Your task to perform on an android device: Go to battery settings Image 0: 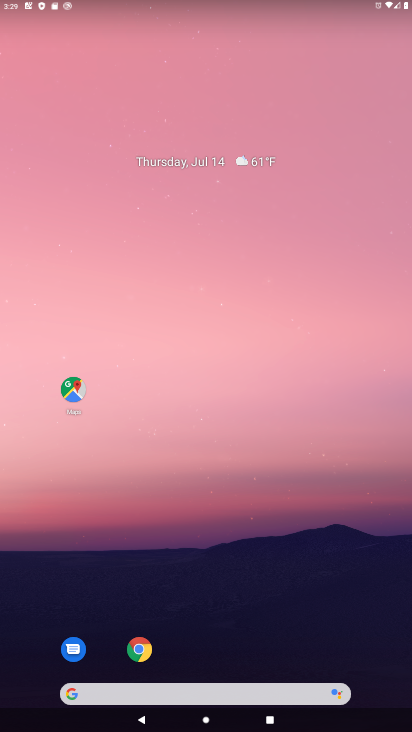
Step 0: press home button
Your task to perform on an android device: Go to battery settings Image 1: 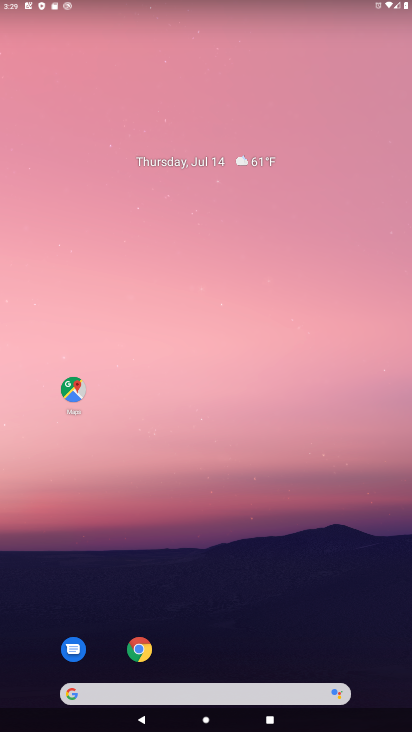
Step 1: drag from (193, 665) to (146, 116)
Your task to perform on an android device: Go to battery settings Image 2: 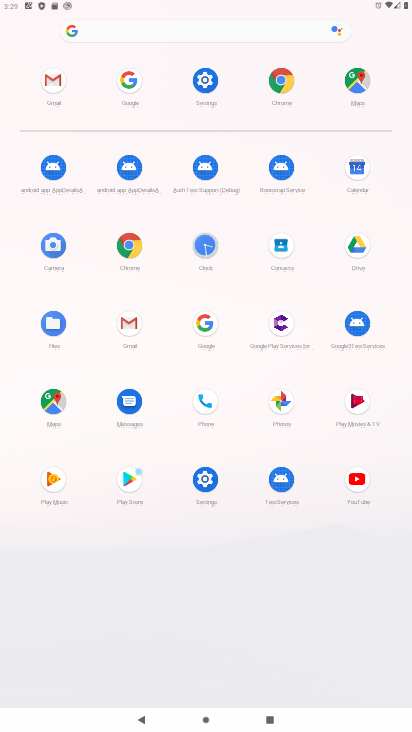
Step 2: click (205, 91)
Your task to perform on an android device: Go to battery settings Image 3: 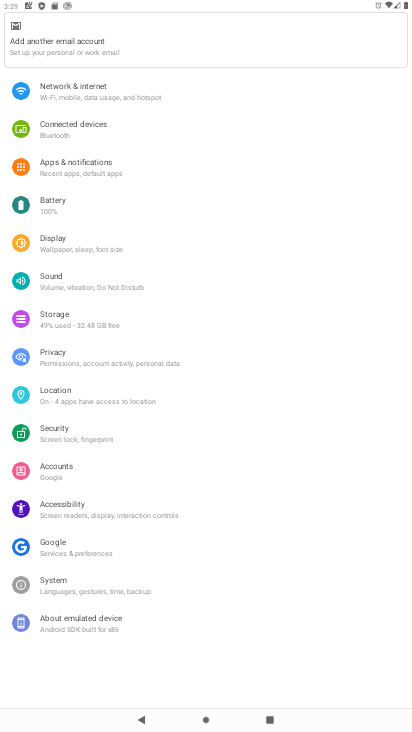
Step 3: click (51, 214)
Your task to perform on an android device: Go to battery settings Image 4: 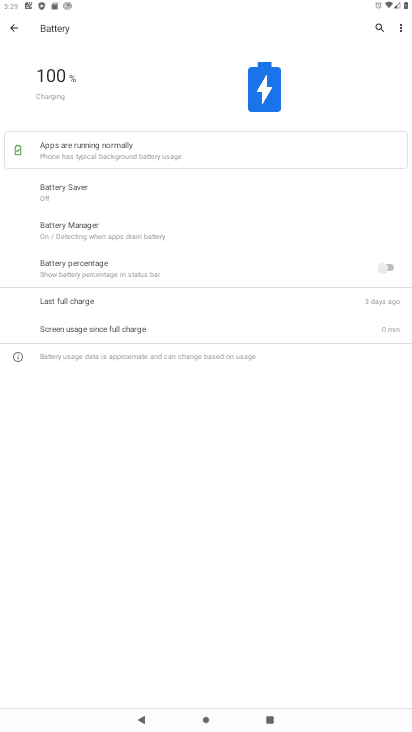
Step 4: task complete